Your task to perform on an android device: Open Google Chrome and open the bookmarks view Image 0: 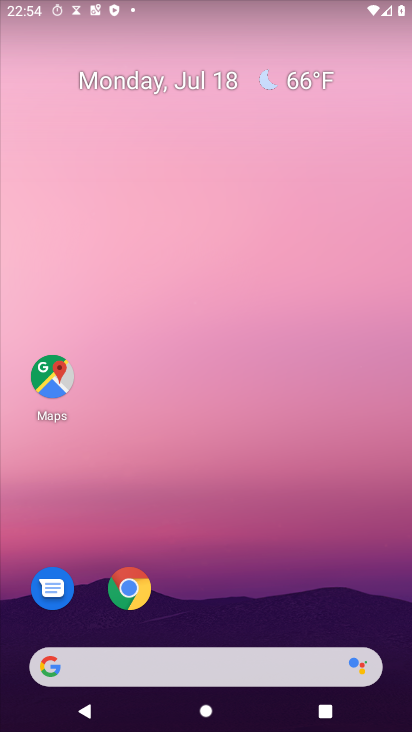
Step 0: press home button
Your task to perform on an android device: Open Google Chrome and open the bookmarks view Image 1: 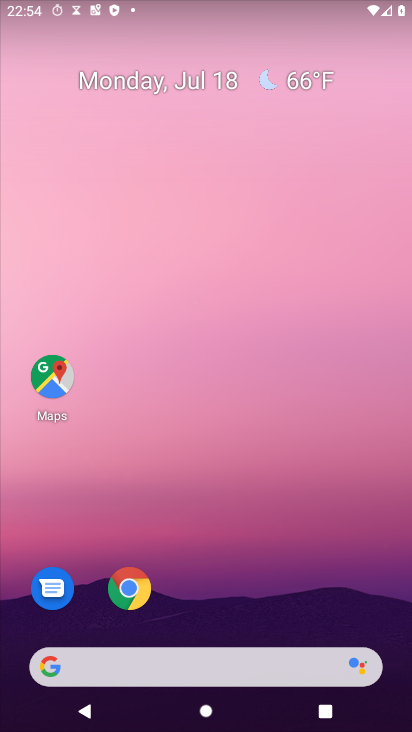
Step 1: click (132, 587)
Your task to perform on an android device: Open Google Chrome and open the bookmarks view Image 2: 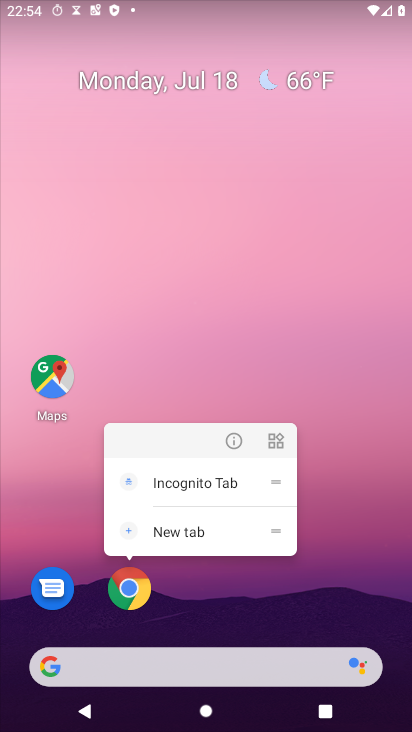
Step 2: click (133, 588)
Your task to perform on an android device: Open Google Chrome and open the bookmarks view Image 3: 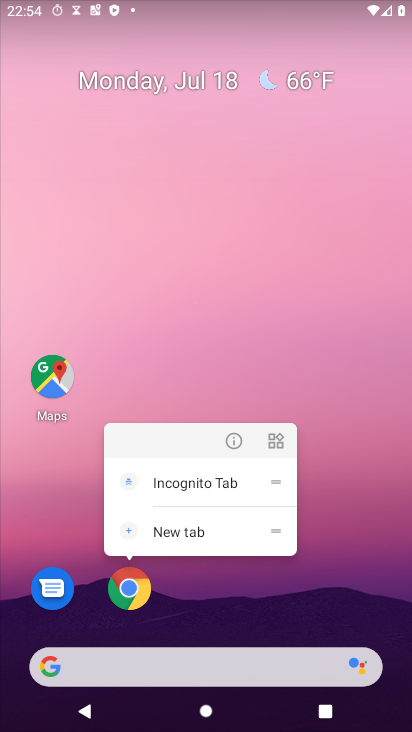
Step 3: click (131, 593)
Your task to perform on an android device: Open Google Chrome and open the bookmarks view Image 4: 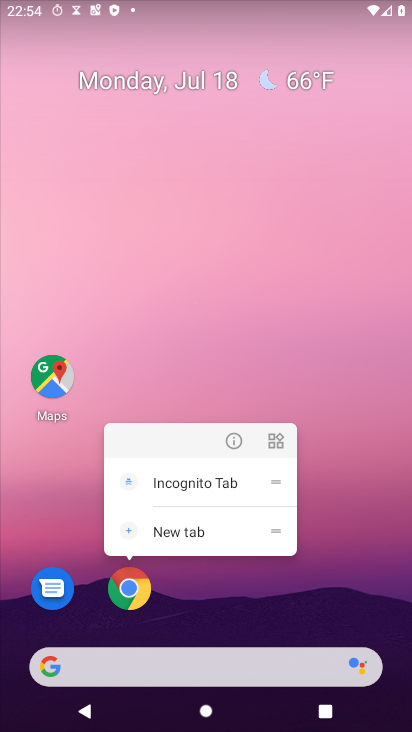
Step 4: click (131, 593)
Your task to perform on an android device: Open Google Chrome and open the bookmarks view Image 5: 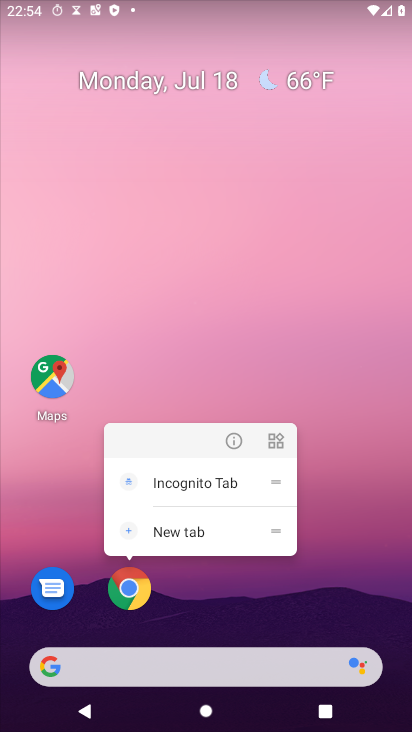
Step 5: click (131, 594)
Your task to perform on an android device: Open Google Chrome and open the bookmarks view Image 6: 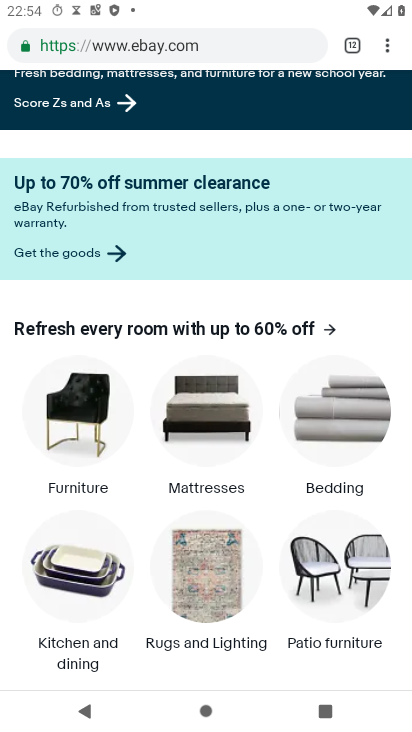
Step 6: task complete